Your task to perform on an android device: Open privacy settings Image 0: 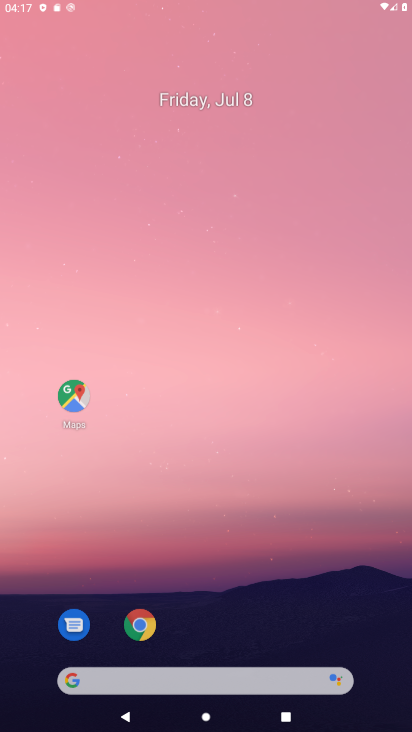
Step 0: click (150, 625)
Your task to perform on an android device: Open privacy settings Image 1: 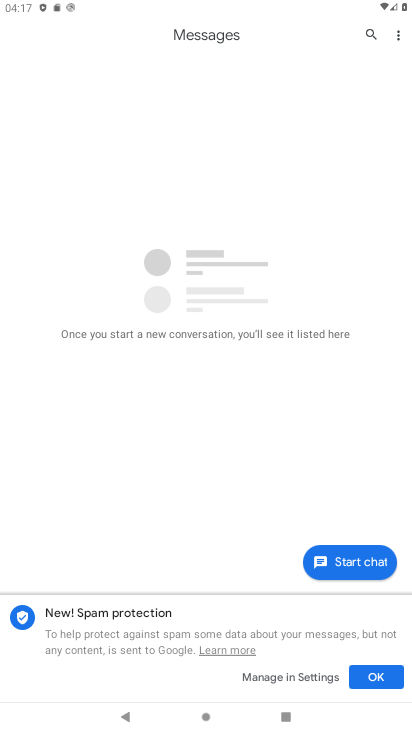
Step 1: press home button
Your task to perform on an android device: Open privacy settings Image 2: 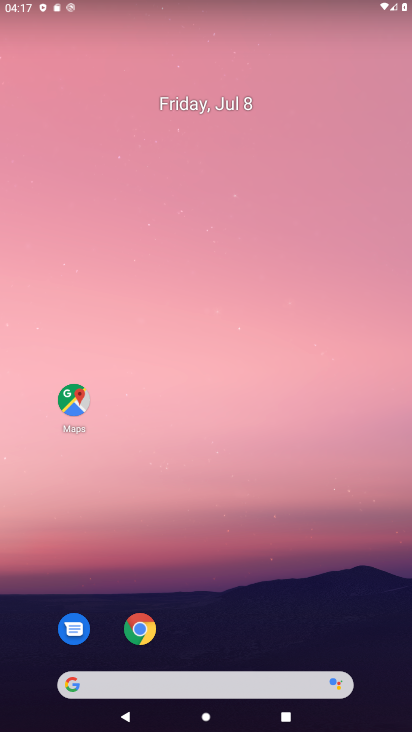
Step 2: drag from (233, 725) to (237, 80)
Your task to perform on an android device: Open privacy settings Image 3: 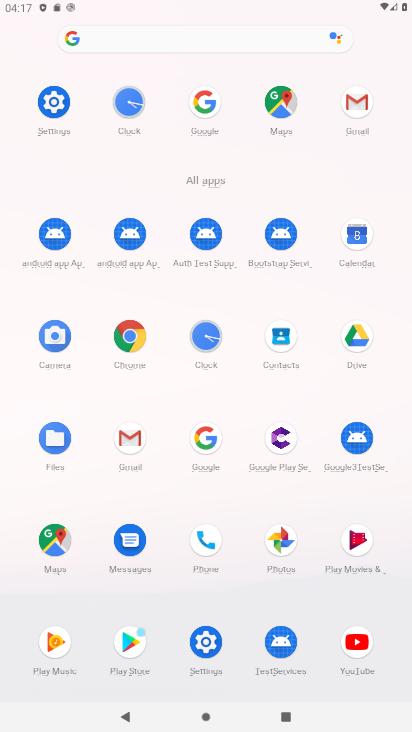
Step 3: click (52, 97)
Your task to perform on an android device: Open privacy settings Image 4: 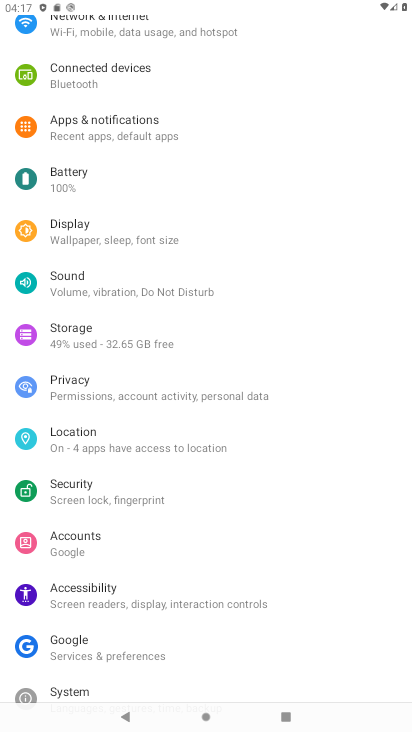
Step 4: click (75, 386)
Your task to perform on an android device: Open privacy settings Image 5: 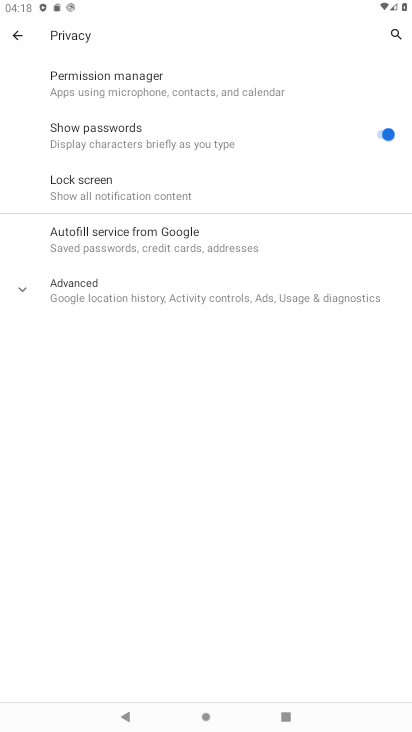
Step 5: task complete